Your task to perform on an android device: change the clock style Image 0: 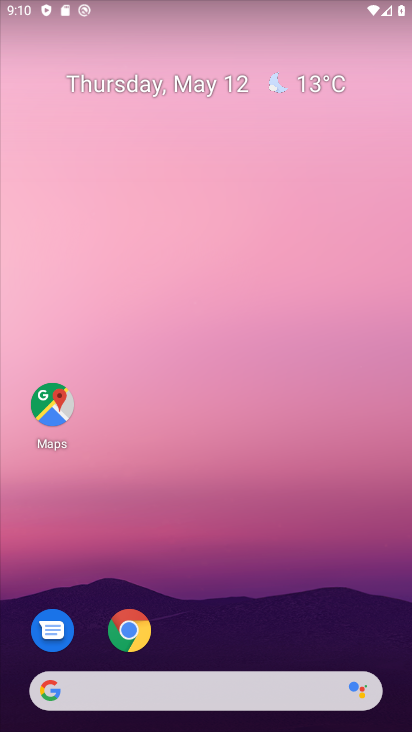
Step 0: drag from (227, 687) to (330, 176)
Your task to perform on an android device: change the clock style Image 1: 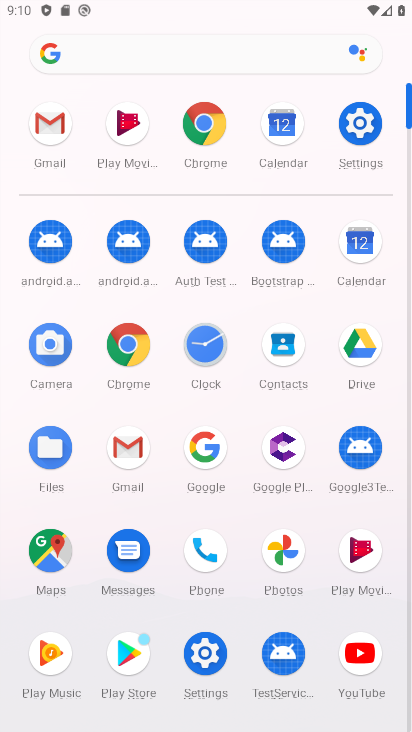
Step 1: click (210, 344)
Your task to perform on an android device: change the clock style Image 2: 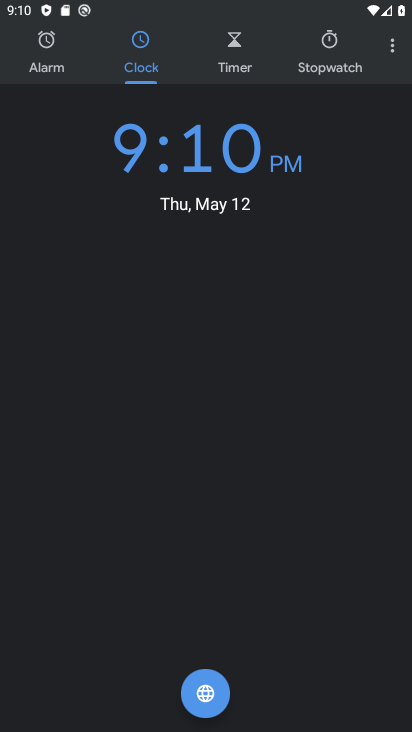
Step 2: click (396, 45)
Your task to perform on an android device: change the clock style Image 3: 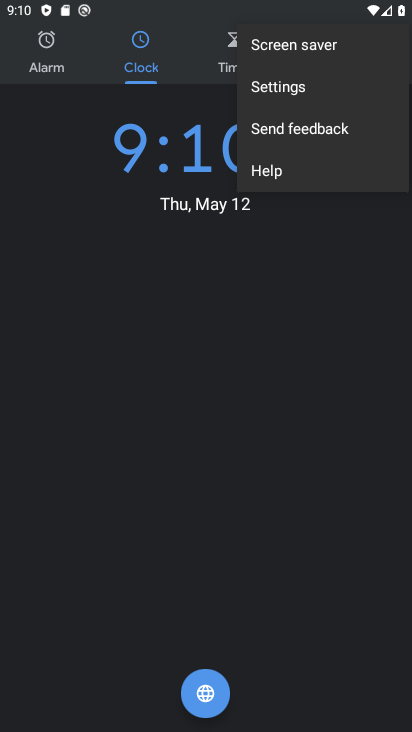
Step 3: click (268, 101)
Your task to perform on an android device: change the clock style Image 4: 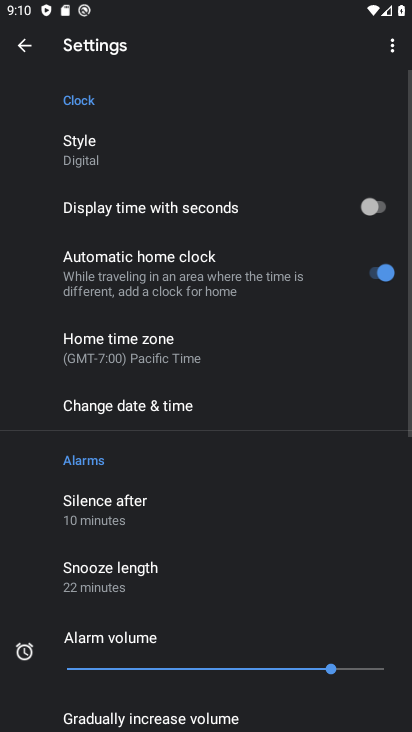
Step 4: click (145, 135)
Your task to perform on an android device: change the clock style Image 5: 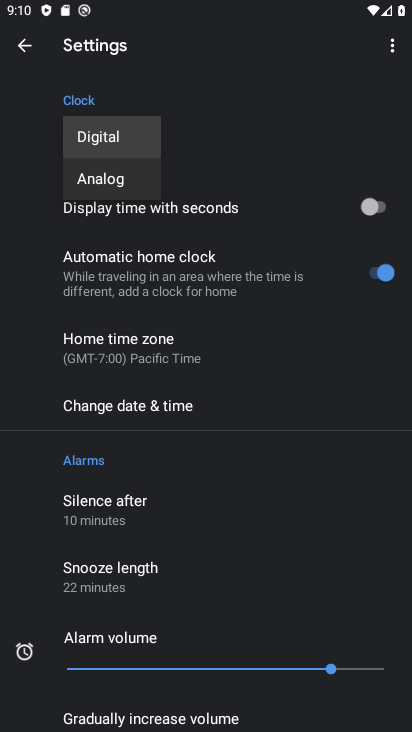
Step 5: click (107, 175)
Your task to perform on an android device: change the clock style Image 6: 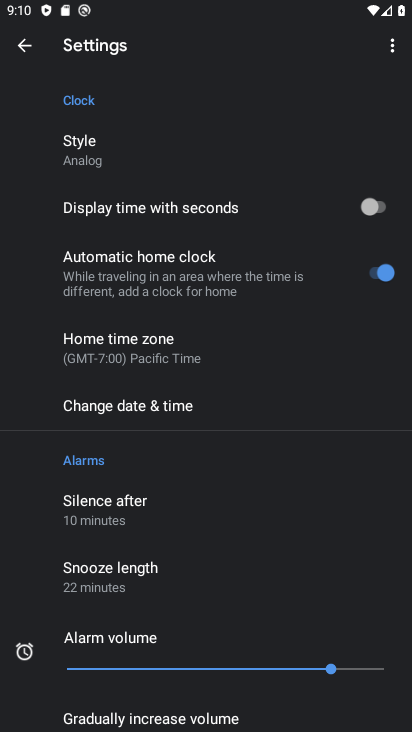
Step 6: task complete